Your task to perform on an android device: change your default location settings in chrome Image 0: 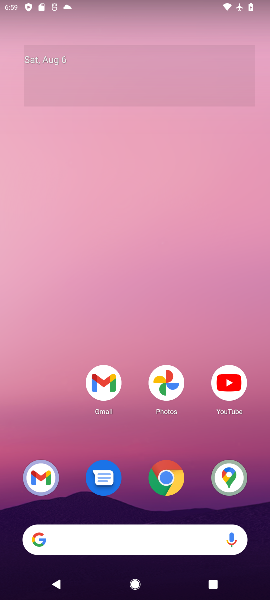
Step 0: press home button
Your task to perform on an android device: change your default location settings in chrome Image 1: 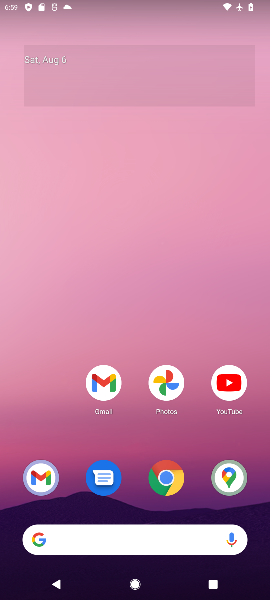
Step 1: click (168, 480)
Your task to perform on an android device: change your default location settings in chrome Image 2: 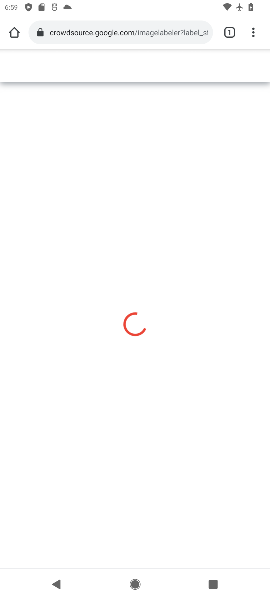
Step 2: drag from (250, 29) to (147, 429)
Your task to perform on an android device: change your default location settings in chrome Image 3: 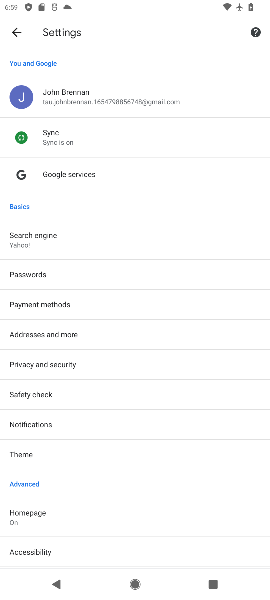
Step 3: drag from (66, 488) to (89, 301)
Your task to perform on an android device: change your default location settings in chrome Image 4: 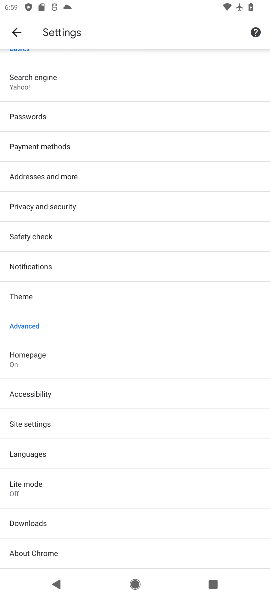
Step 4: click (30, 423)
Your task to perform on an android device: change your default location settings in chrome Image 5: 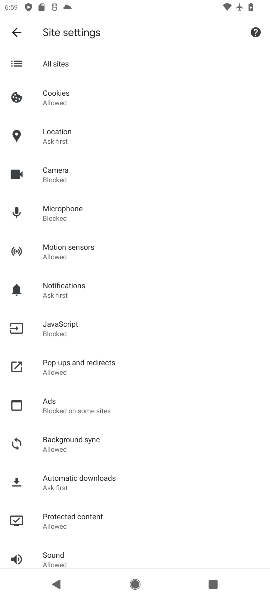
Step 5: click (55, 140)
Your task to perform on an android device: change your default location settings in chrome Image 6: 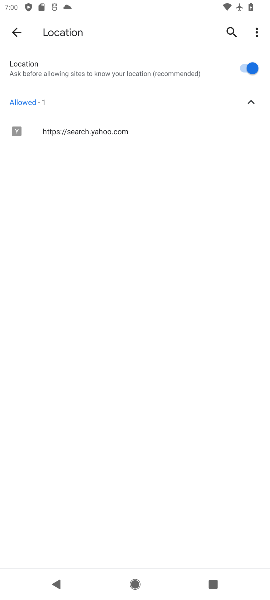
Step 6: click (246, 72)
Your task to perform on an android device: change your default location settings in chrome Image 7: 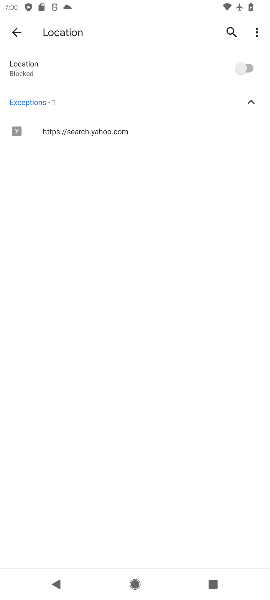
Step 7: task complete